Your task to perform on an android device: Do I have any events today? Image 0: 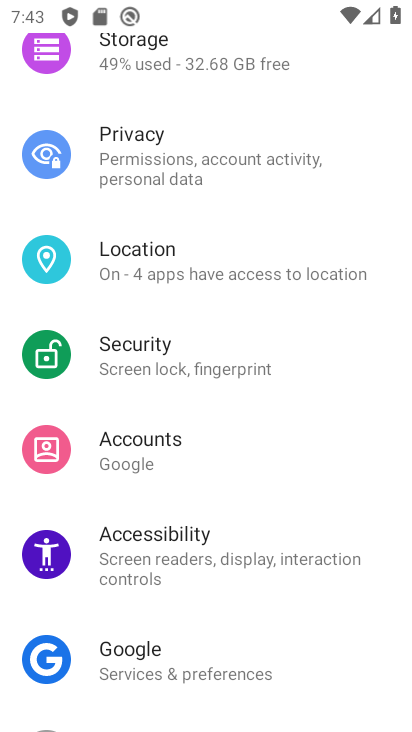
Step 0: press home button
Your task to perform on an android device: Do I have any events today? Image 1: 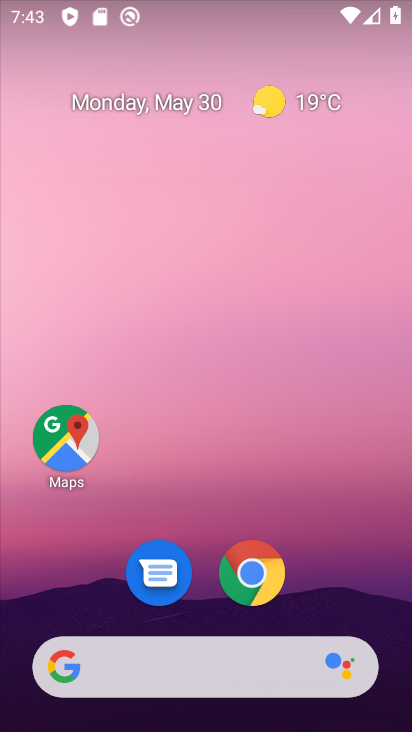
Step 1: drag from (196, 605) to (206, 297)
Your task to perform on an android device: Do I have any events today? Image 2: 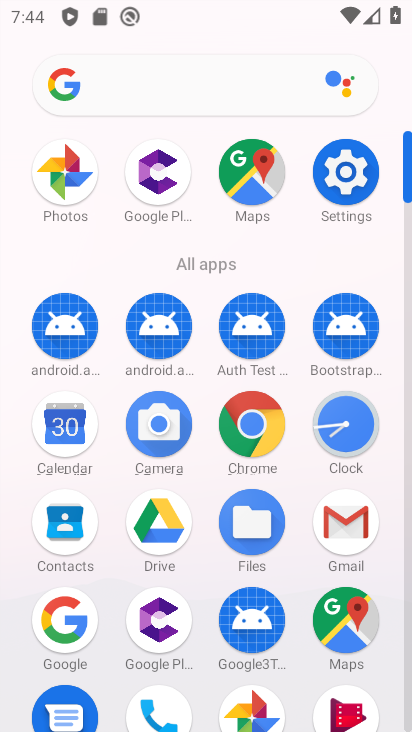
Step 2: click (58, 439)
Your task to perform on an android device: Do I have any events today? Image 3: 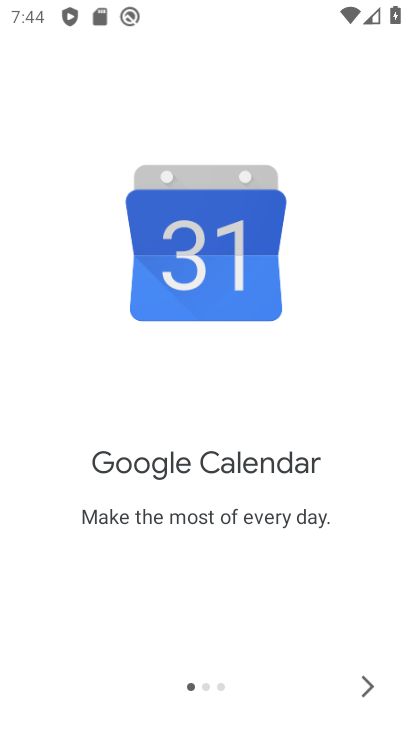
Step 3: click (375, 701)
Your task to perform on an android device: Do I have any events today? Image 4: 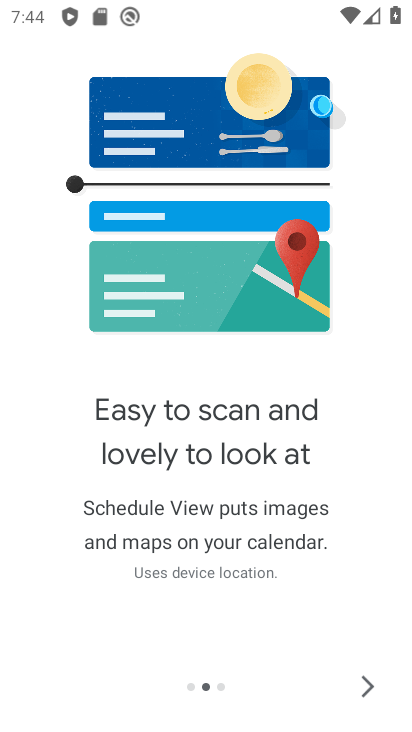
Step 4: click (371, 688)
Your task to perform on an android device: Do I have any events today? Image 5: 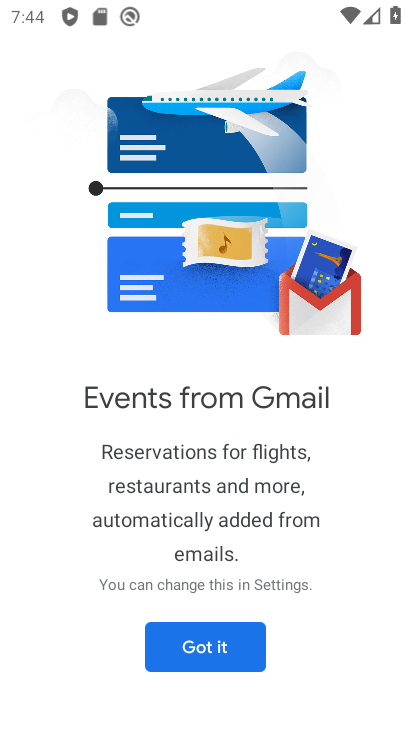
Step 5: click (236, 652)
Your task to perform on an android device: Do I have any events today? Image 6: 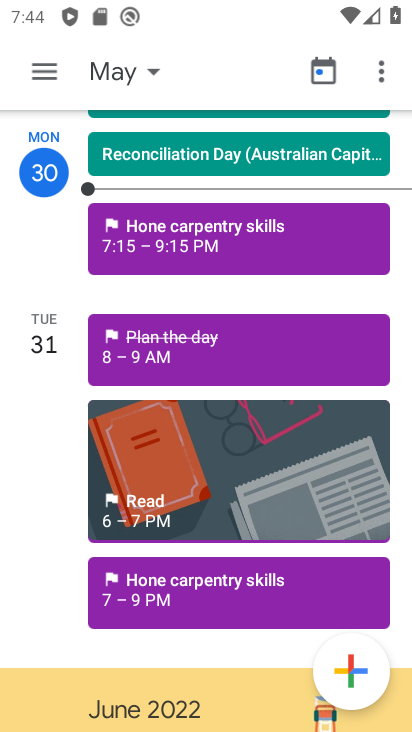
Step 6: click (40, 66)
Your task to perform on an android device: Do I have any events today? Image 7: 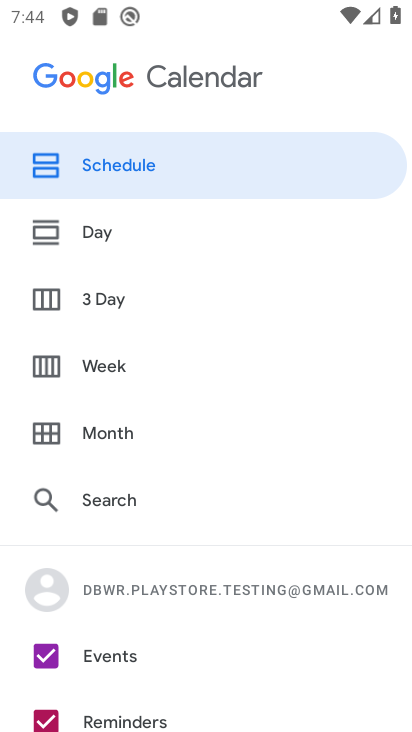
Step 7: click (104, 227)
Your task to perform on an android device: Do I have any events today? Image 8: 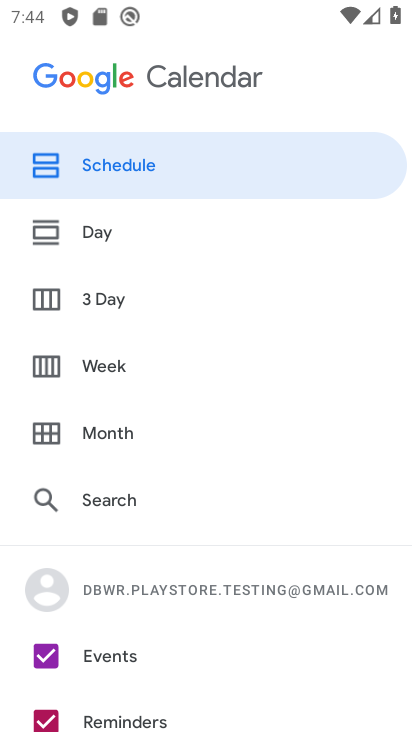
Step 8: drag from (184, 546) to (198, 433)
Your task to perform on an android device: Do I have any events today? Image 9: 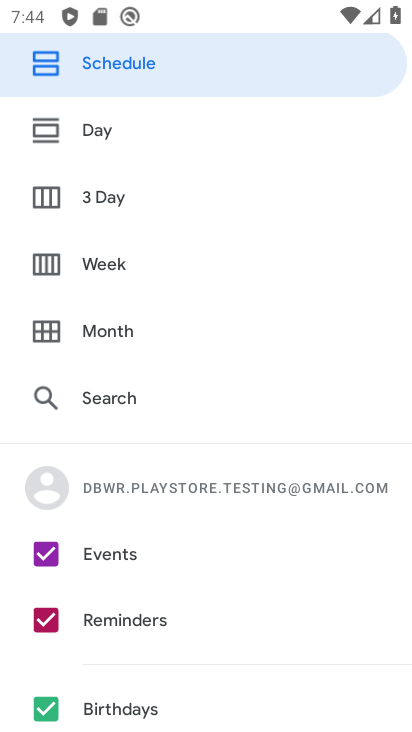
Step 9: click (121, 610)
Your task to perform on an android device: Do I have any events today? Image 10: 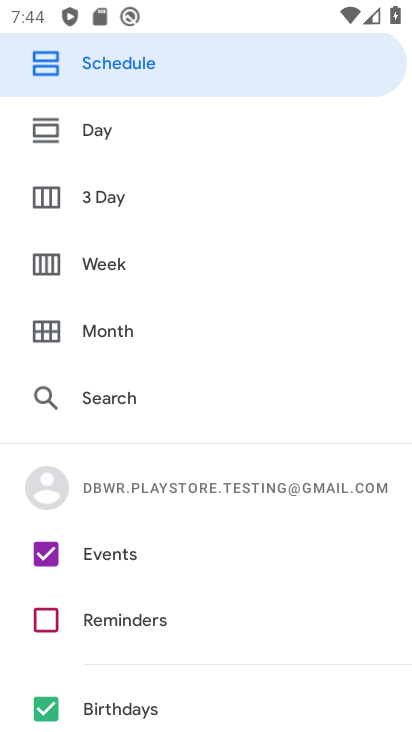
Step 10: drag from (225, 662) to (274, 431)
Your task to perform on an android device: Do I have any events today? Image 11: 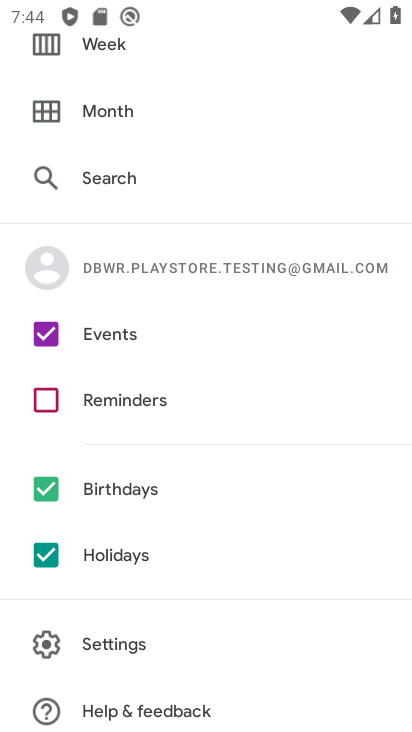
Step 11: click (116, 496)
Your task to perform on an android device: Do I have any events today? Image 12: 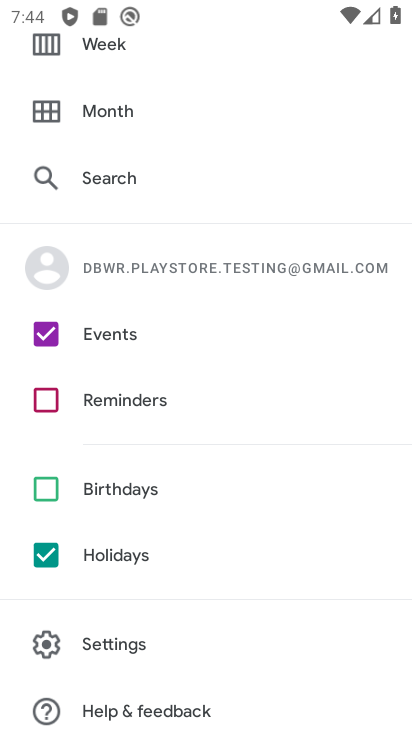
Step 12: click (99, 566)
Your task to perform on an android device: Do I have any events today? Image 13: 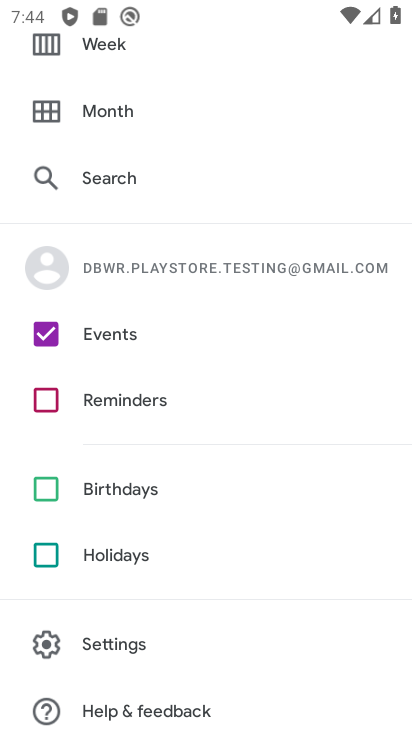
Step 13: drag from (294, 229) to (288, 329)
Your task to perform on an android device: Do I have any events today? Image 14: 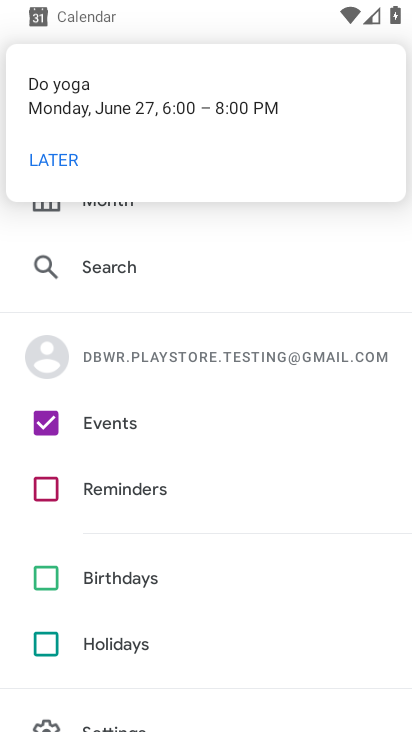
Step 14: drag from (273, 297) to (267, 562)
Your task to perform on an android device: Do I have any events today? Image 15: 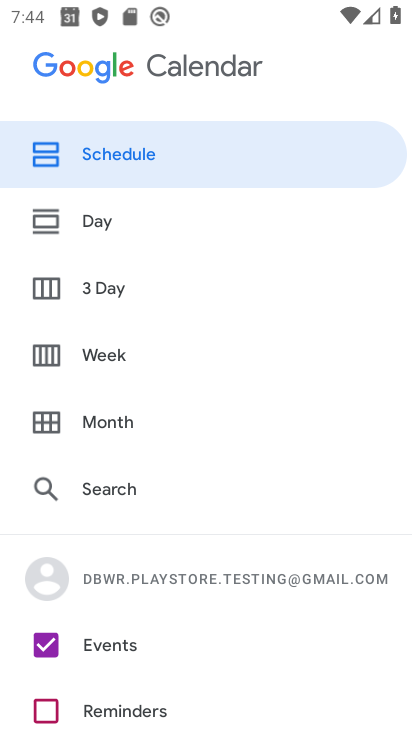
Step 15: click (95, 215)
Your task to perform on an android device: Do I have any events today? Image 16: 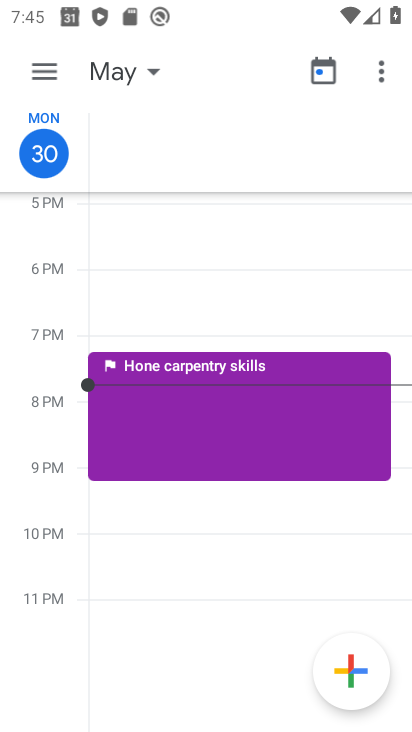
Step 16: task complete